Your task to perform on an android device: turn on translation in the chrome app Image 0: 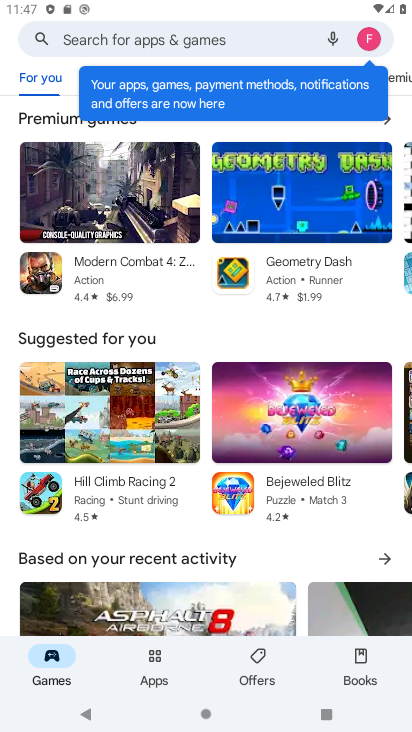
Step 0: press home button
Your task to perform on an android device: turn on translation in the chrome app Image 1: 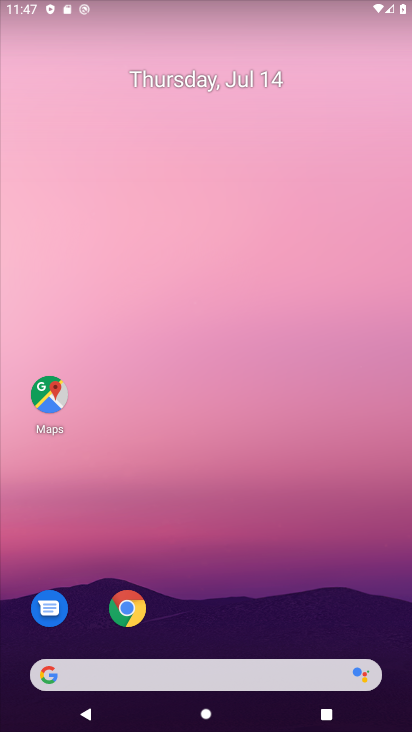
Step 1: drag from (193, 638) to (274, 143)
Your task to perform on an android device: turn on translation in the chrome app Image 2: 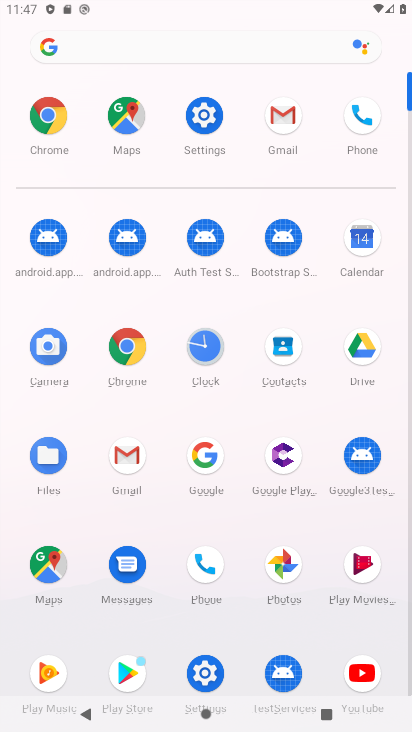
Step 2: click (131, 336)
Your task to perform on an android device: turn on translation in the chrome app Image 3: 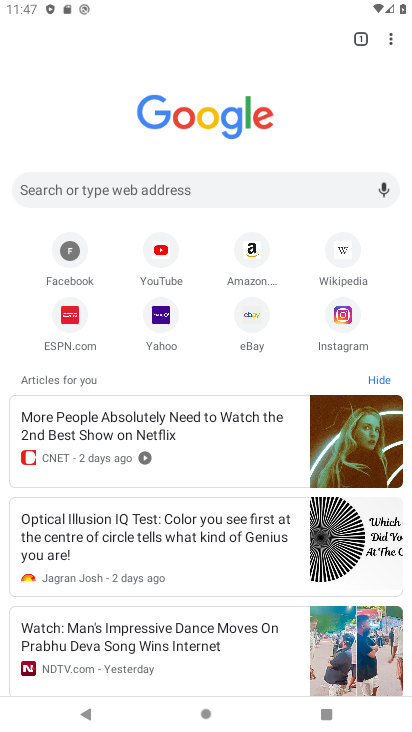
Step 3: drag from (384, 31) to (284, 288)
Your task to perform on an android device: turn on translation in the chrome app Image 4: 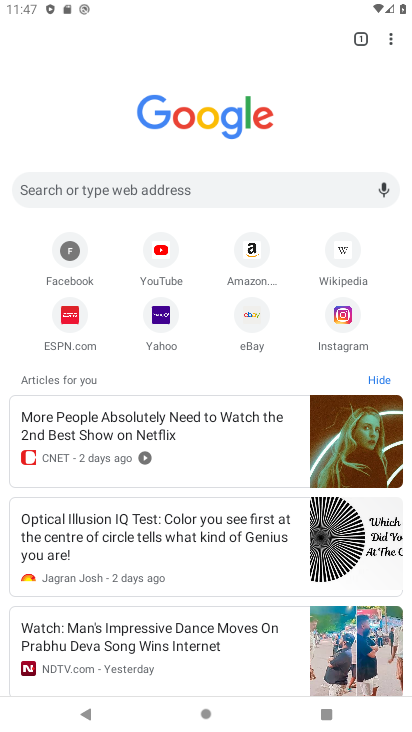
Step 4: click (259, 330)
Your task to perform on an android device: turn on translation in the chrome app Image 5: 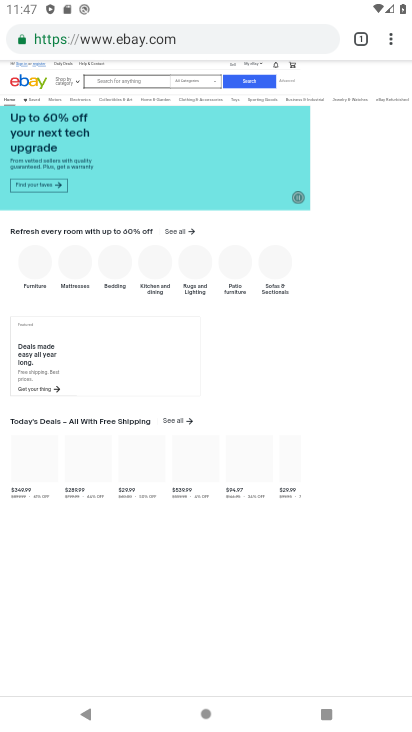
Step 5: click (391, 34)
Your task to perform on an android device: turn on translation in the chrome app Image 6: 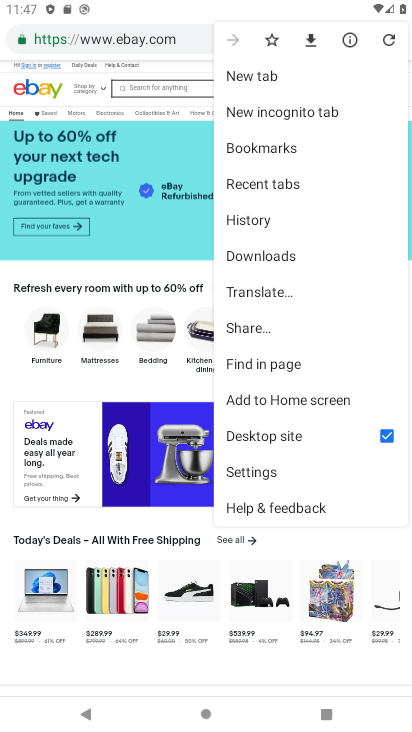
Step 6: click (251, 472)
Your task to perform on an android device: turn on translation in the chrome app Image 7: 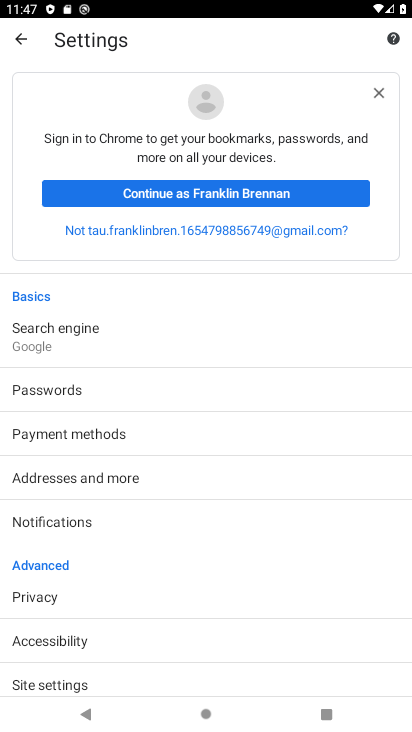
Step 7: drag from (164, 648) to (258, 116)
Your task to perform on an android device: turn on translation in the chrome app Image 8: 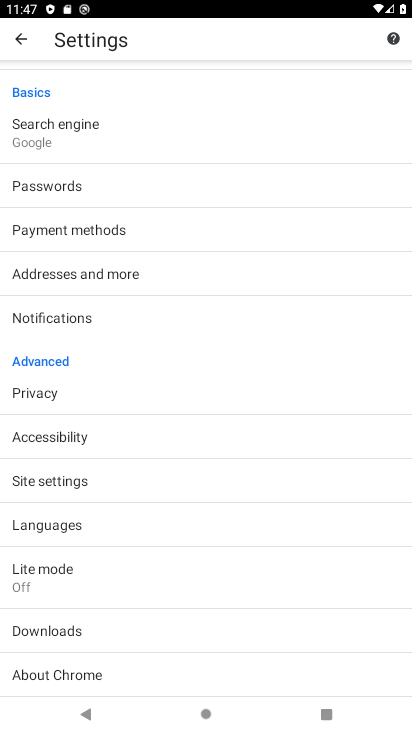
Step 8: click (172, 526)
Your task to perform on an android device: turn on translation in the chrome app Image 9: 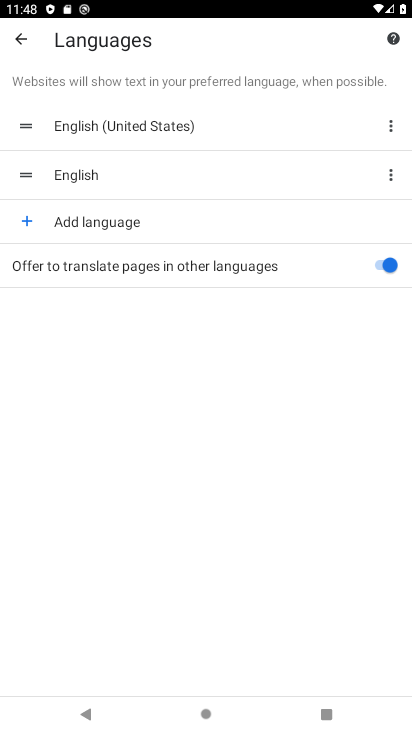
Step 9: task complete